Your task to perform on an android device: turn on improve location accuracy Image 0: 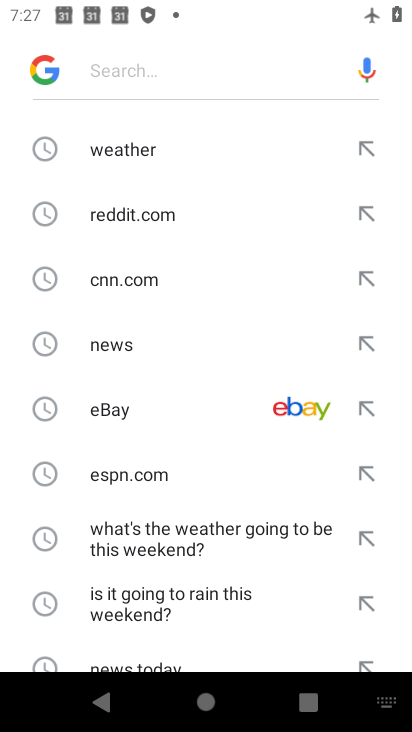
Step 0: press home button
Your task to perform on an android device: turn on improve location accuracy Image 1: 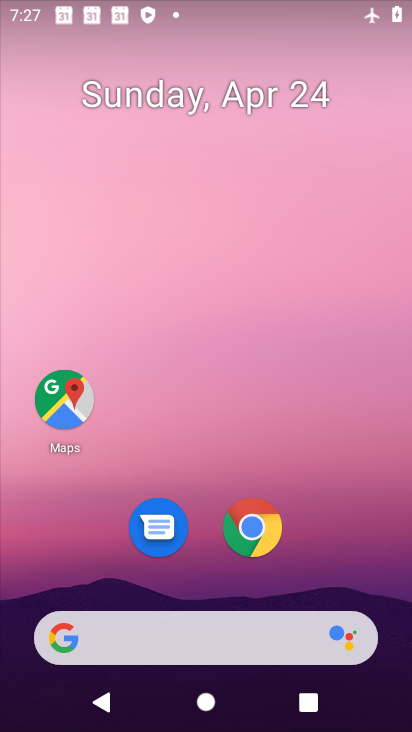
Step 1: drag from (316, 581) to (255, 1)
Your task to perform on an android device: turn on improve location accuracy Image 2: 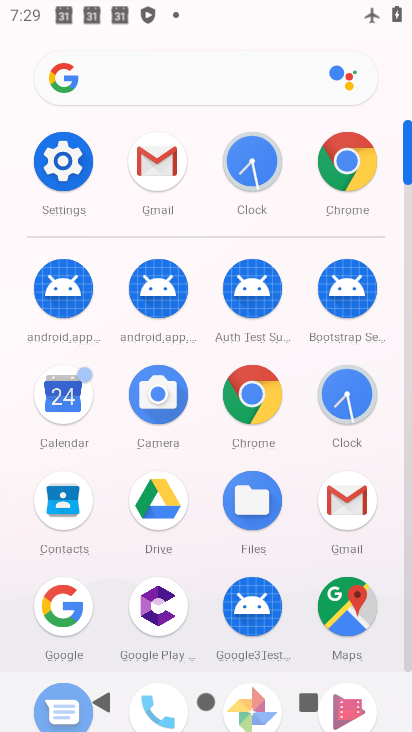
Step 2: click (59, 148)
Your task to perform on an android device: turn on improve location accuracy Image 3: 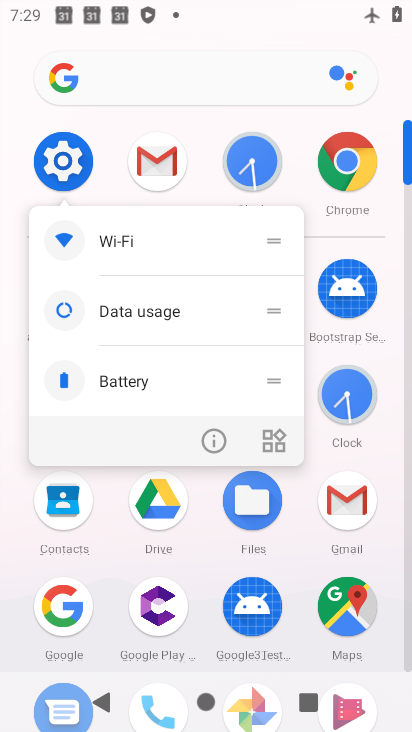
Step 3: click (59, 148)
Your task to perform on an android device: turn on improve location accuracy Image 4: 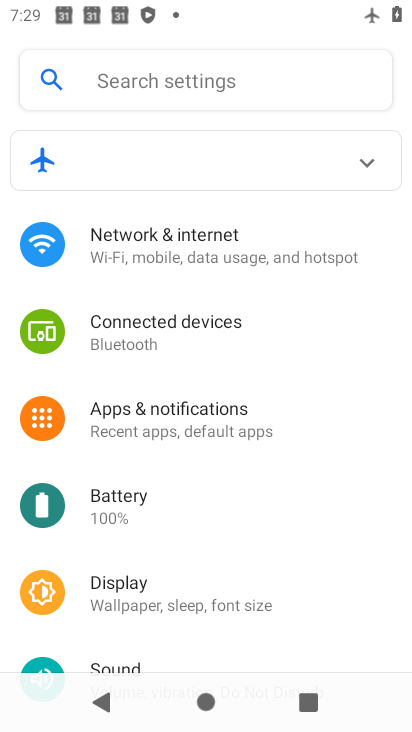
Step 4: drag from (148, 589) to (203, 143)
Your task to perform on an android device: turn on improve location accuracy Image 5: 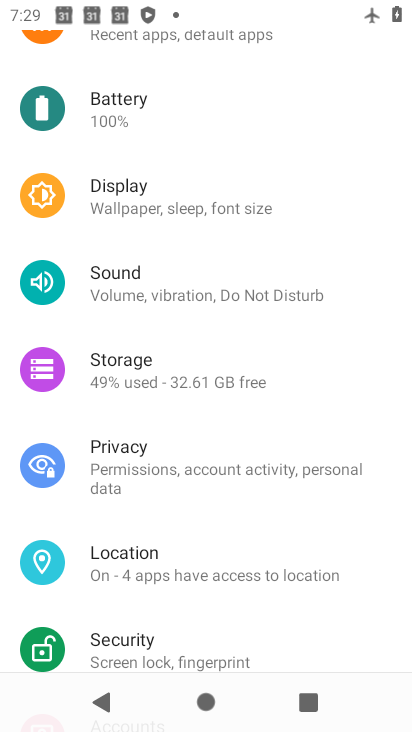
Step 5: click (160, 562)
Your task to perform on an android device: turn on improve location accuracy Image 6: 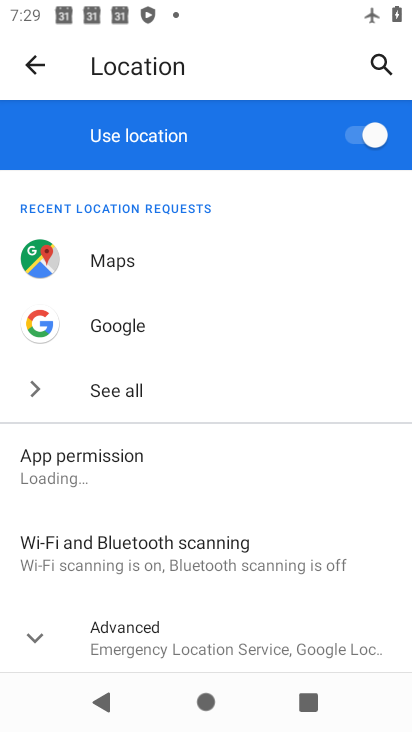
Step 6: click (125, 626)
Your task to perform on an android device: turn on improve location accuracy Image 7: 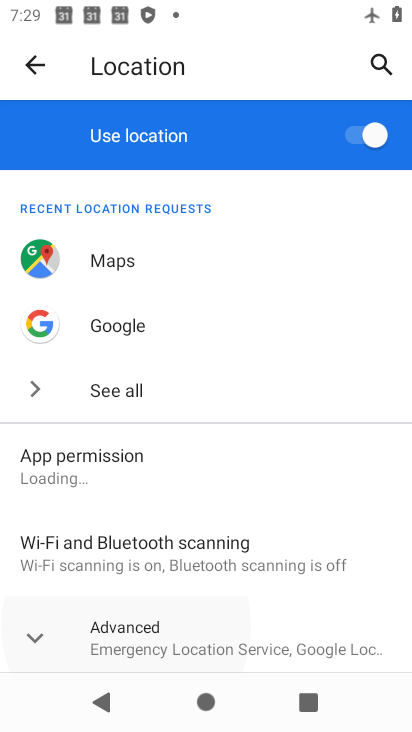
Step 7: drag from (134, 604) to (187, 169)
Your task to perform on an android device: turn on improve location accuracy Image 8: 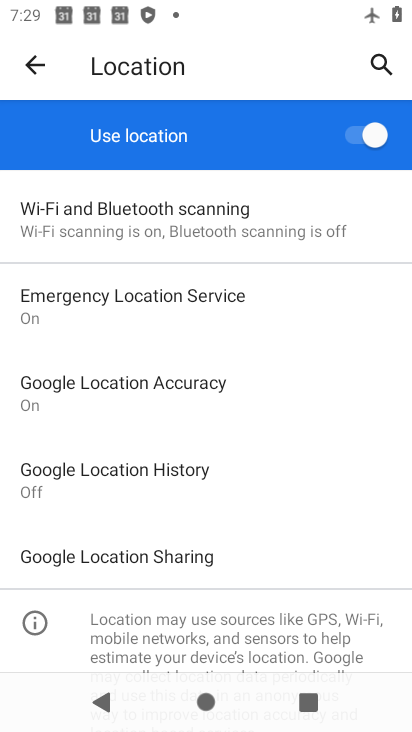
Step 8: click (150, 375)
Your task to perform on an android device: turn on improve location accuracy Image 9: 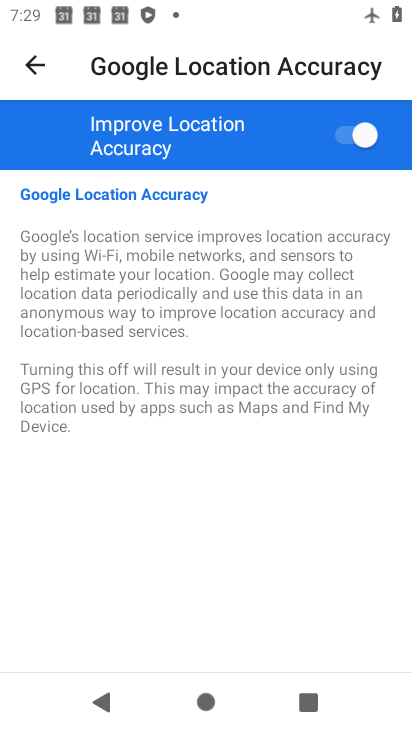
Step 9: task complete